Your task to perform on an android device: toggle data saver in the chrome app Image 0: 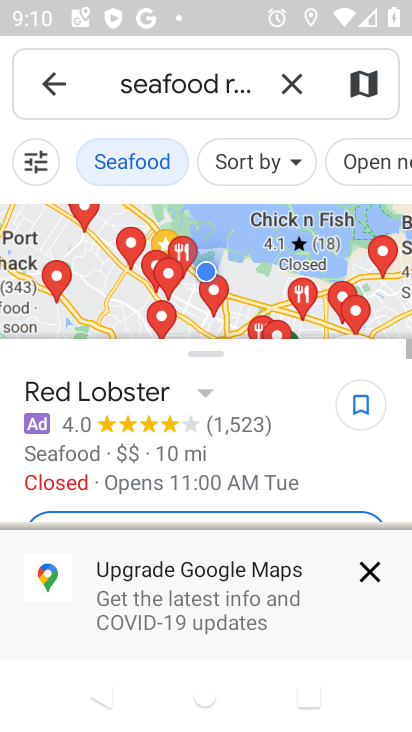
Step 0: drag from (187, 548) to (283, 107)
Your task to perform on an android device: toggle data saver in the chrome app Image 1: 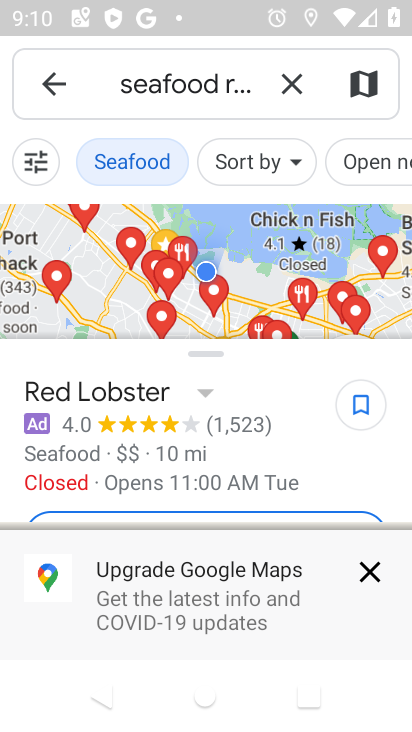
Step 1: press home button
Your task to perform on an android device: toggle data saver in the chrome app Image 2: 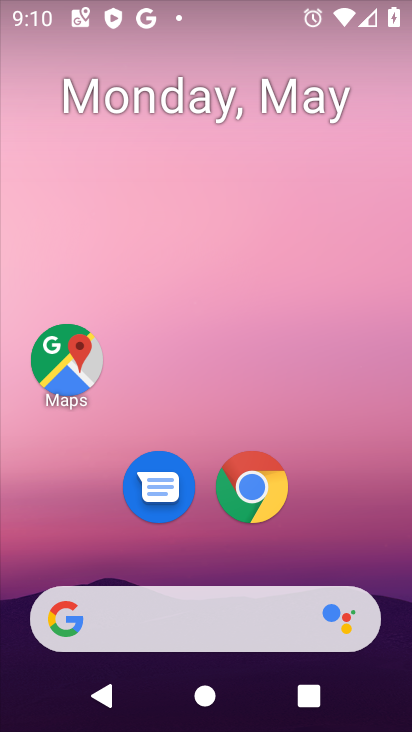
Step 2: click (250, 487)
Your task to perform on an android device: toggle data saver in the chrome app Image 3: 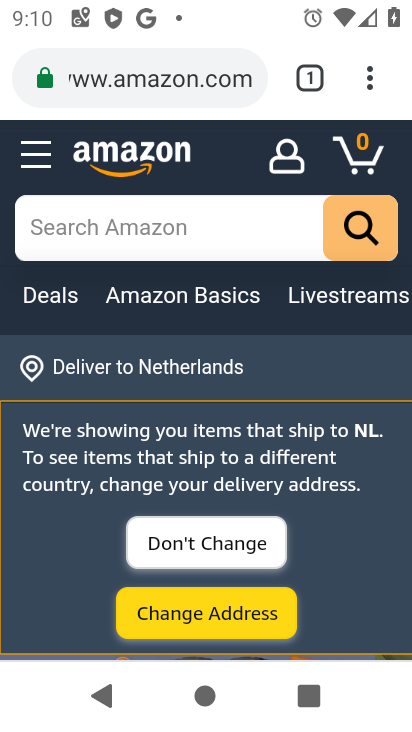
Step 3: click (373, 74)
Your task to perform on an android device: toggle data saver in the chrome app Image 4: 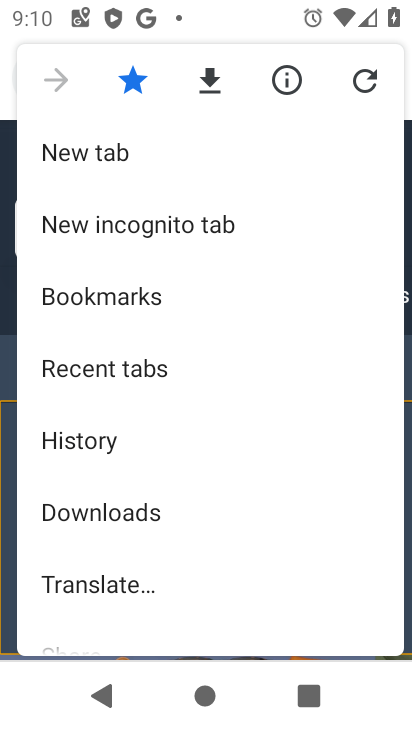
Step 4: drag from (117, 600) to (213, 171)
Your task to perform on an android device: toggle data saver in the chrome app Image 5: 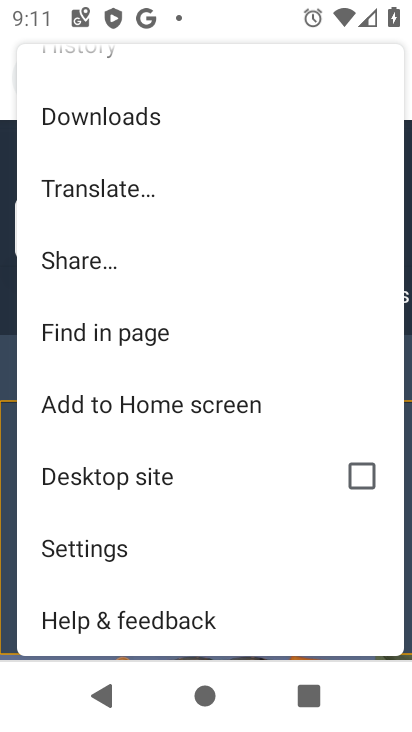
Step 5: click (120, 563)
Your task to perform on an android device: toggle data saver in the chrome app Image 6: 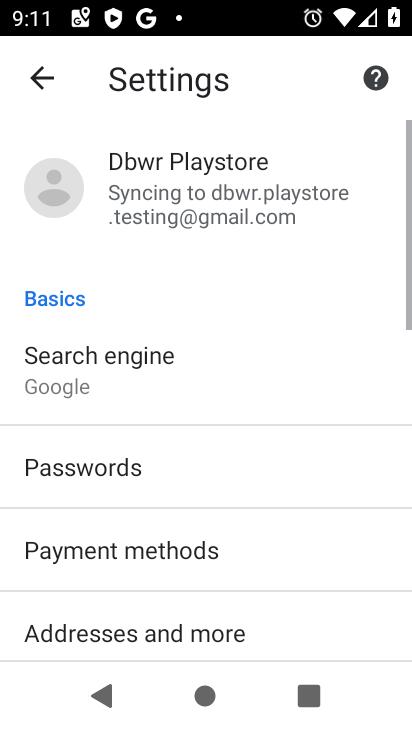
Step 6: drag from (120, 563) to (237, 138)
Your task to perform on an android device: toggle data saver in the chrome app Image 7: 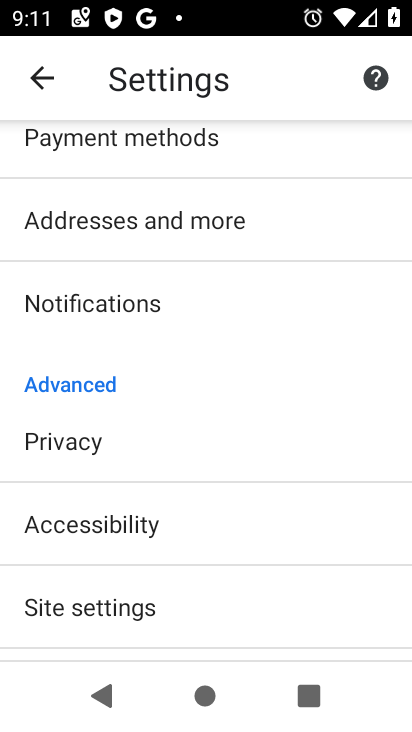
Step 7: drag from (121, 602) to (224, 195)
Your task to perform on an android device: toggle data saver in the chrome app Image 8: 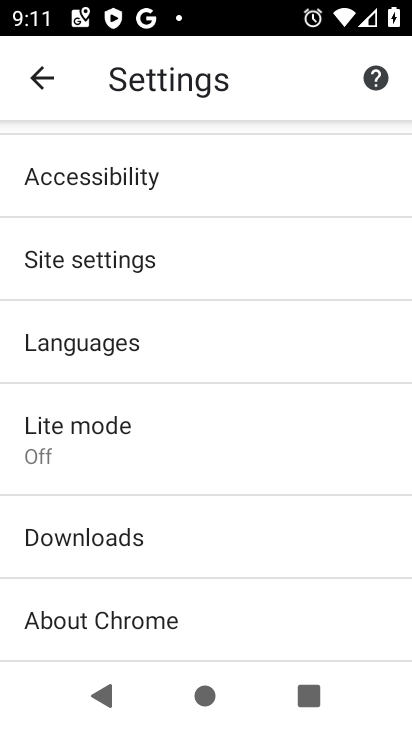
Step 8: click (126, 430)
Your task to perform on an android device: toggle data saver in the chrome app Image 9: 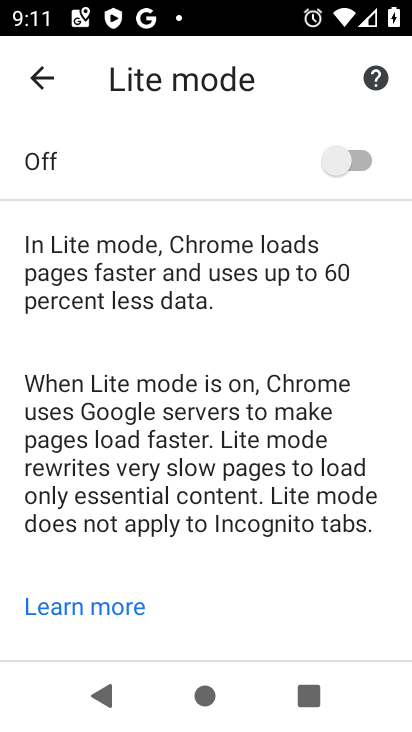
Step 9: click (359, 157)
Your task to perform on an android device: toggle data saver in the chrome app Image 10: 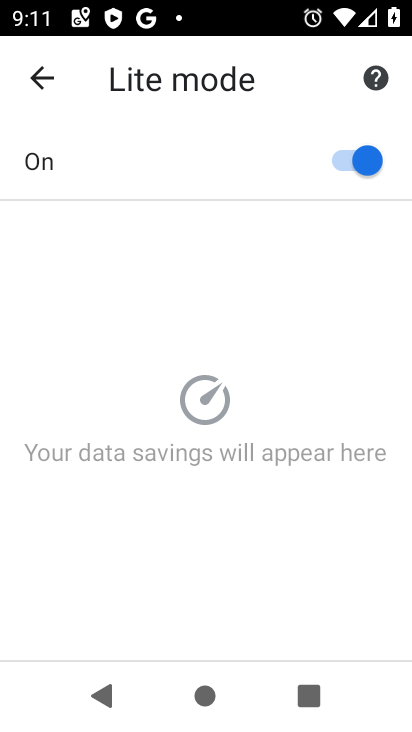
Step 10: click (359, 157)
Your task to perform on an android device: toggle data saver in the chrome app Image 11: 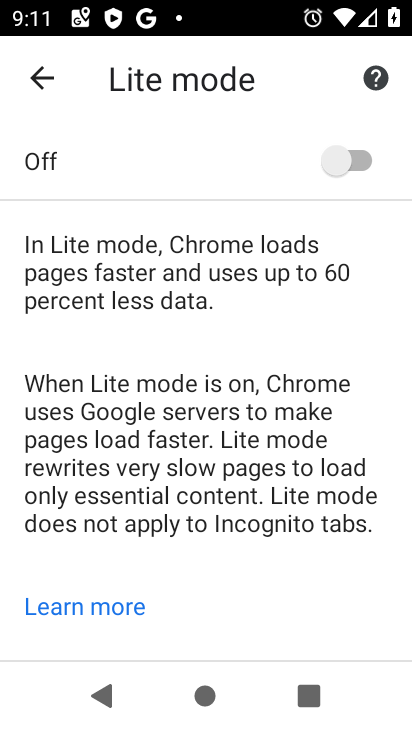
Step 11: task complete